Your task to perform on an android device: Open internet settings Image 0: 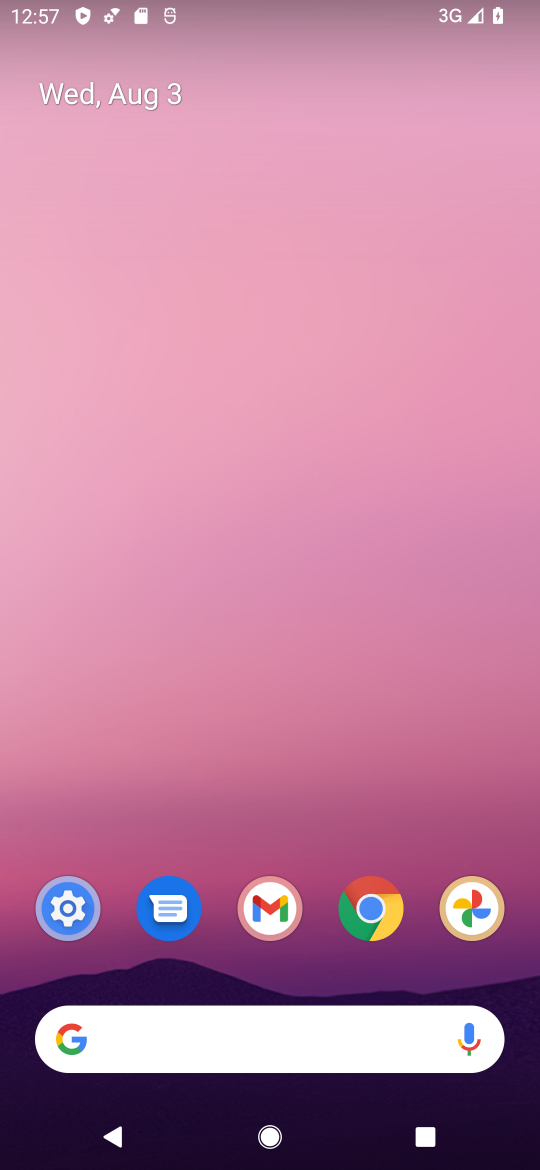
Step 0: click (52, 922)
Your task to perform on an android device: Open internet settings Image 1: 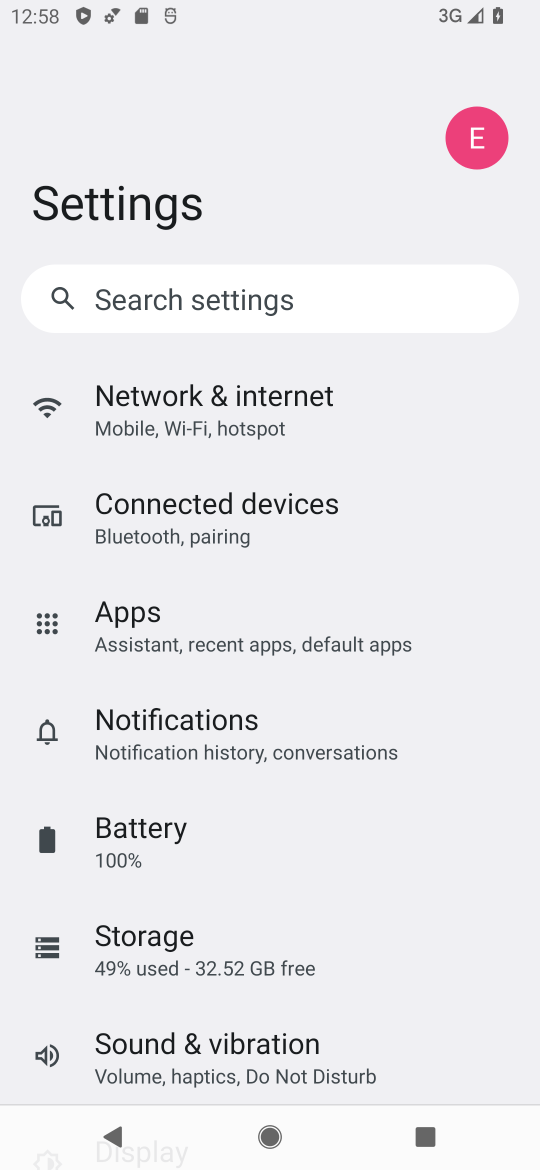
Step 1: click (196, 423)
Your task to perform on an android device: Open internet settings Image 2: 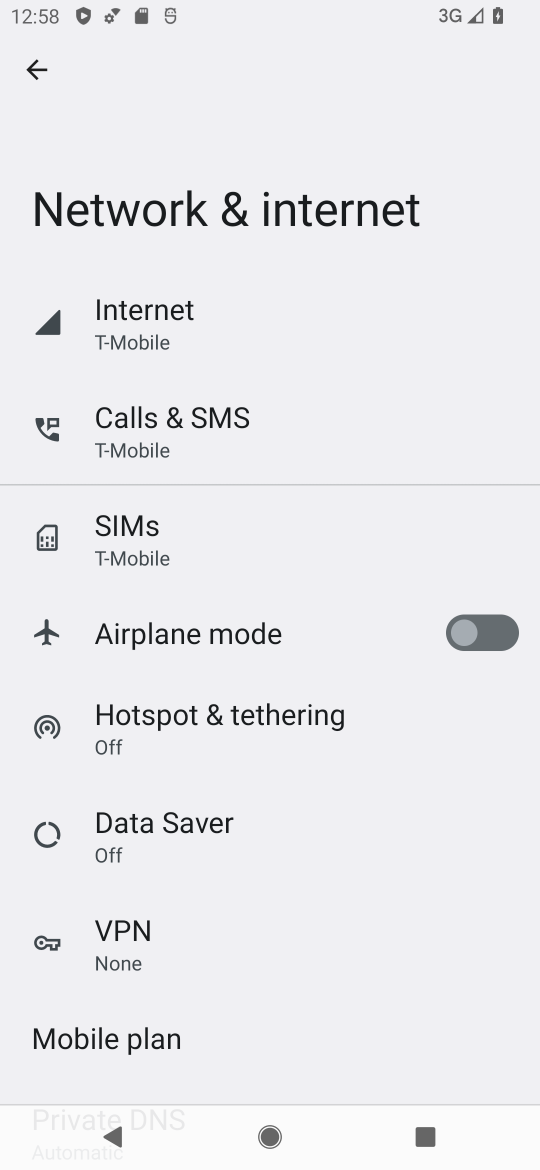
Step 2: click (166, 326)
Your task to perform on an android device: Open internet settings Image 3: 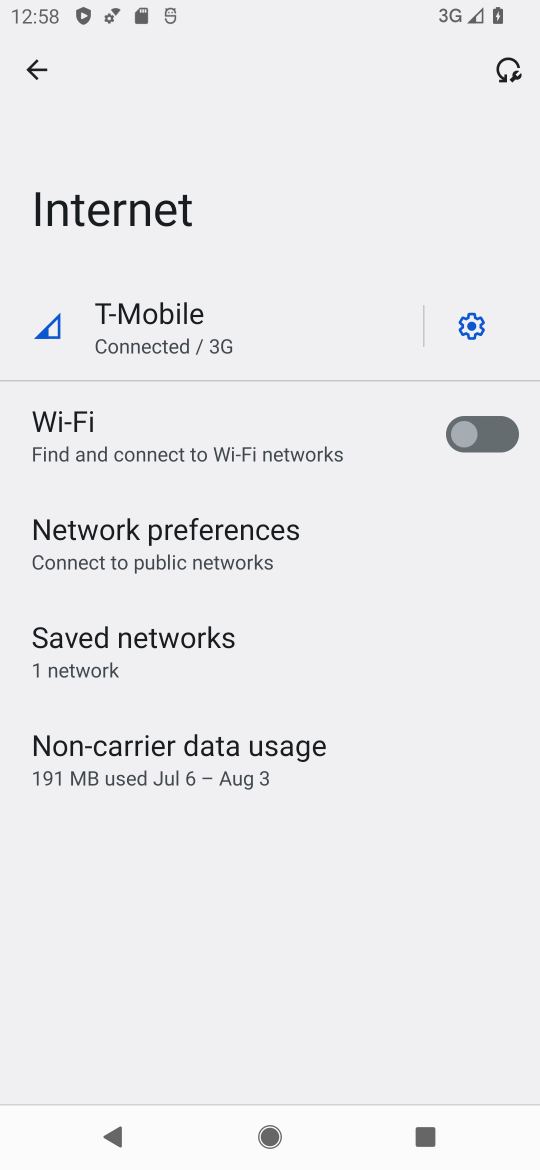
Step 3: task complete